Your task to perform on an android device: Open the stopwatch Image 0: 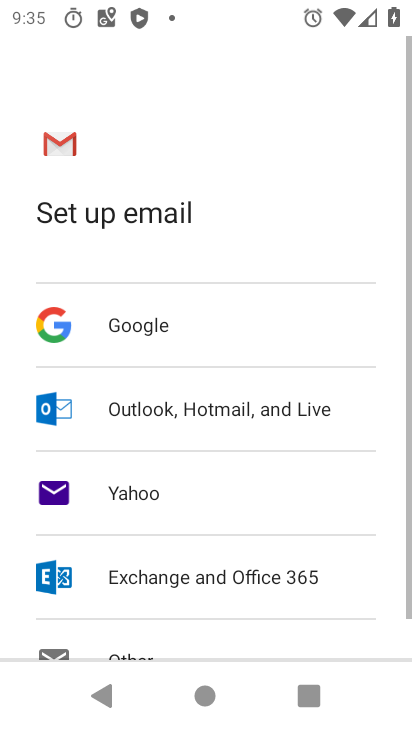
Step 0: press home button
Your task to perform on an android device: Open the stopwatch Image 1: 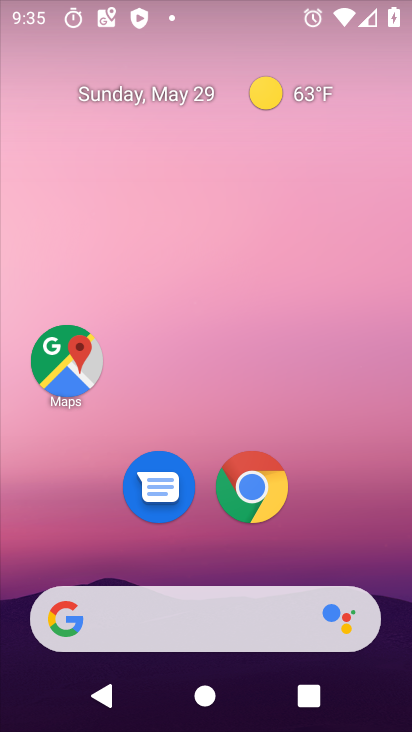
Step 1: drag from (109, 596) to (98, 74)
Your task to perform on an android device: Open the stopwatch Image 2: 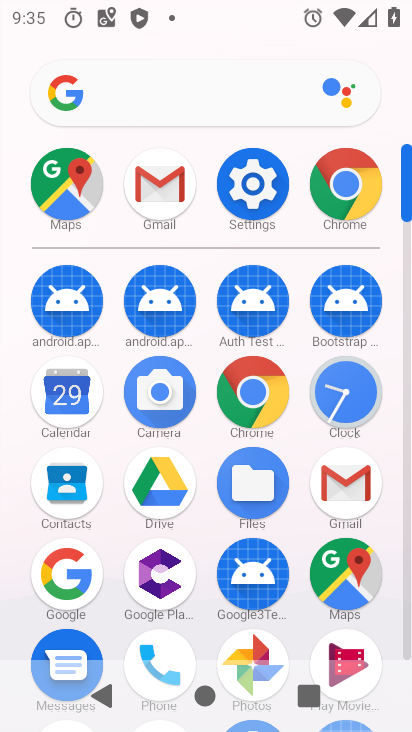
Step 2: drag from (146, 552) to (133, 74)
Your task to perform on an android device: Open the stopwatch Image 3: 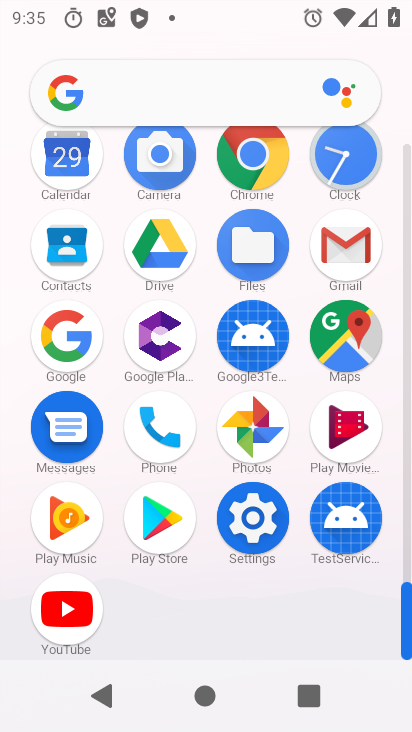
Step 3: click (351, 172)
Your task to perform on an android device: Open the stopwatch Image 4: 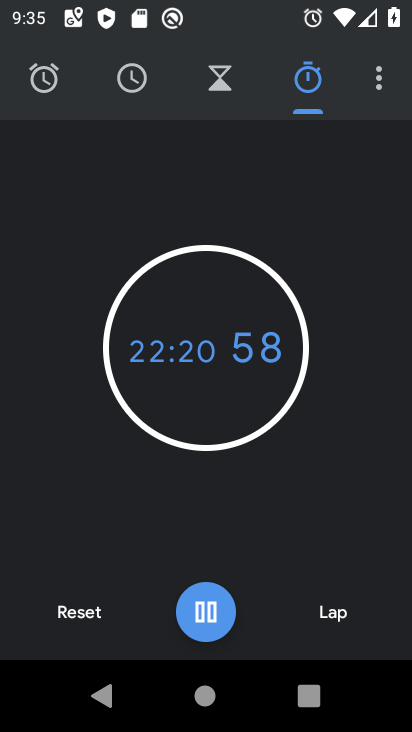
Step 4: task complete